Your task to perform on an android device: Go to eBay Image 0: 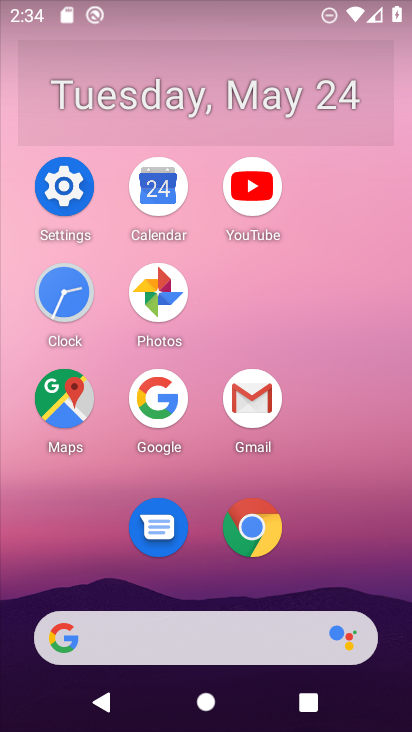
Step 0: click (253, 528)
Your task to perform on an android device: Go to eBay Image 1: 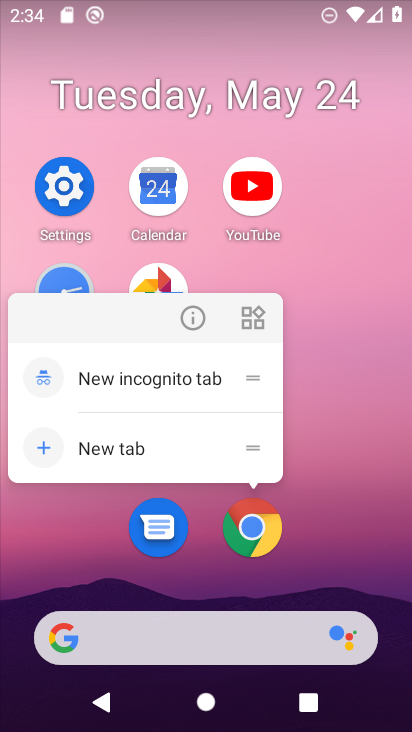
Step 1: click (270, 536)
Your task to perform on an android device: Go to eBay Image 2: 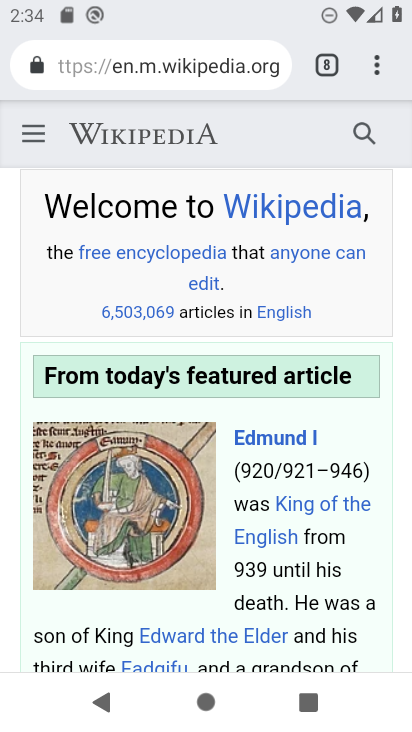
Step 2: click (329, 66)
Your task to perform on an android device: Go to eBay Image 3: 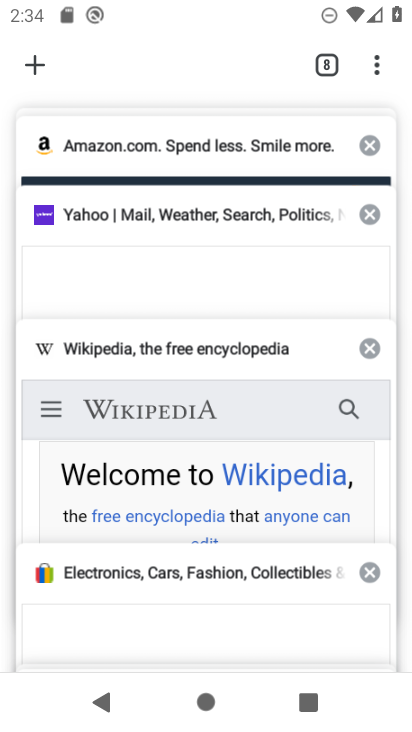
Step 3: drag from (252, 256) to (302, 551)
Your task to perform on an android device: Go to eBay Image 4: 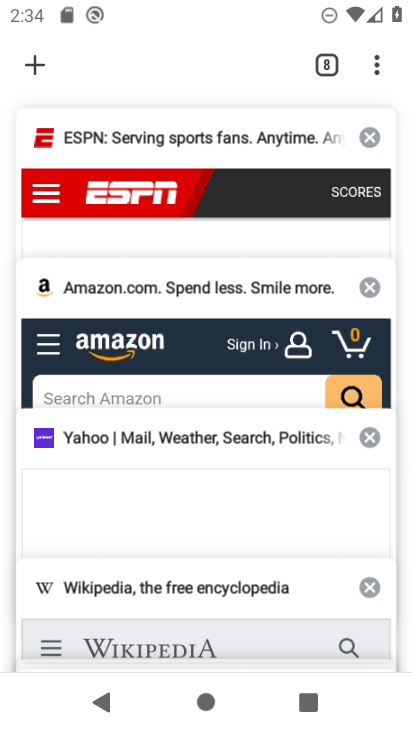
Step 4: drag from (219, 271) to (277, 602)
Your task to perform on an android device: Go to eBay Image 5: 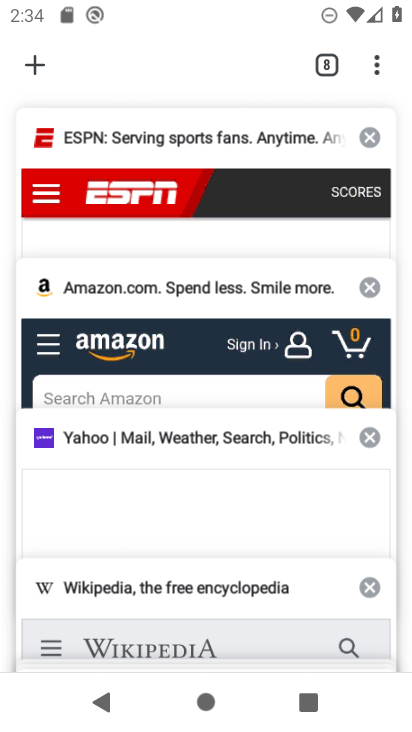
Step 5: drag from (260, 132) to (256, 520)
Your task to perform on an android device: Go to eBay Image 6: 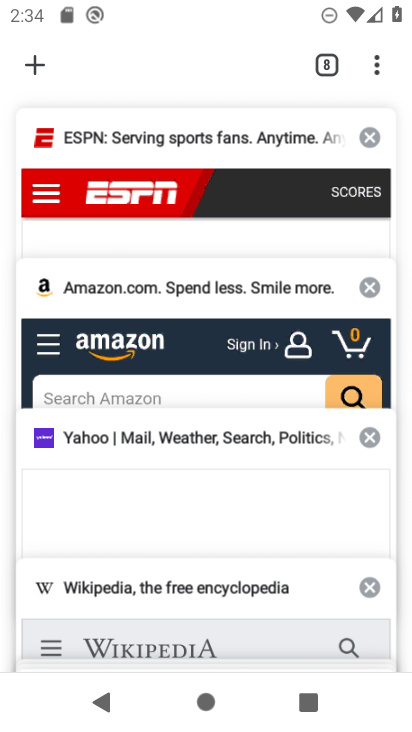
Step 6: drag from (228, 555) to (254, 166)
Your task to perform on an android device: Go to eBay Image 7: 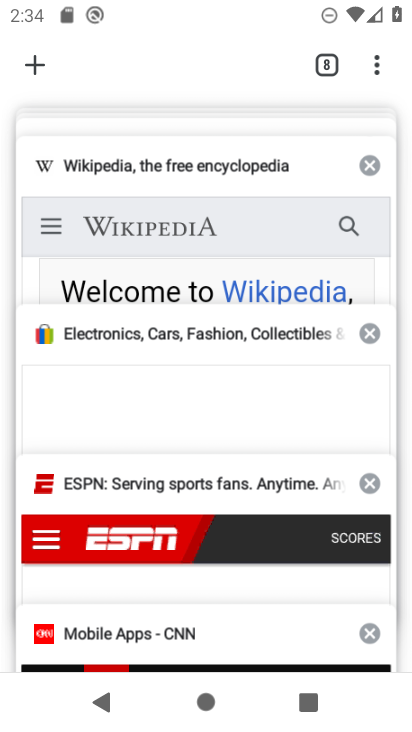
Step 7: drag from (215, 507) to (249, 182)
Your task to perform on an android device: Go to eBay Image 8: 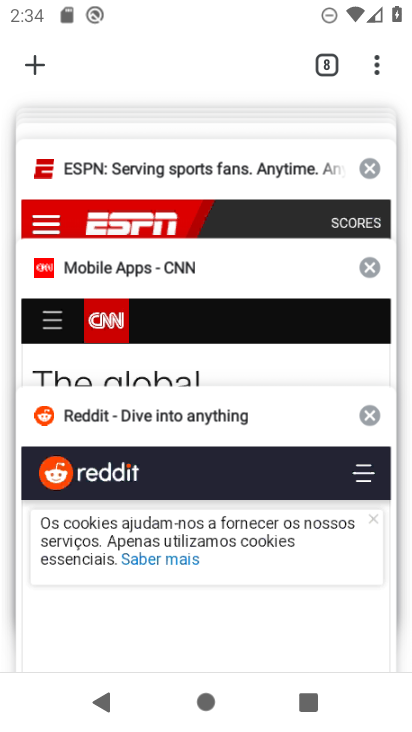
Step 8: drag from (236, 494) to (278, 198)
Your task to perform on an android device: Go to eBay Image 9: 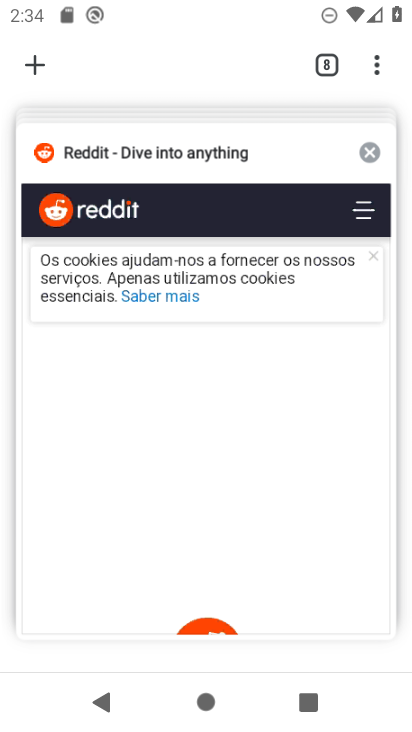
Step 9: drag from (169, 238) to (213, 493)
Your task to perform on an android device: Go to eBay Image 10: 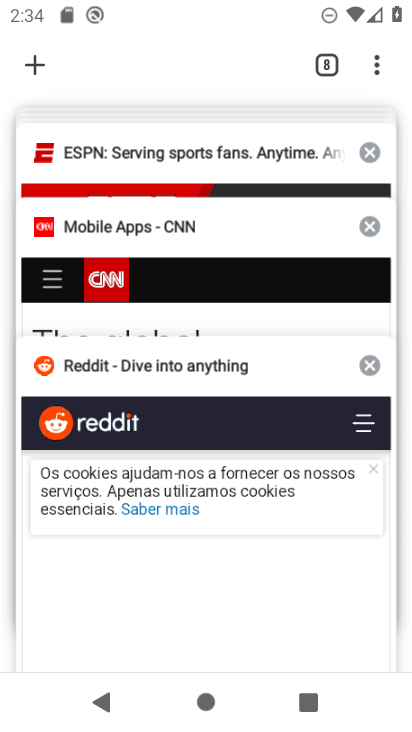
Step 10: click (30, 62)
Your task to perform on an android device: Go to eBay Image 11: 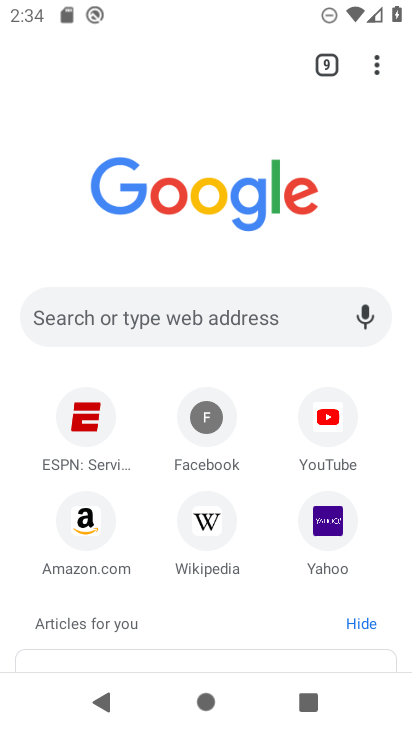
Step 11: click (122, 320)
Your task to perform on an android device: Go to eBay Image 12: 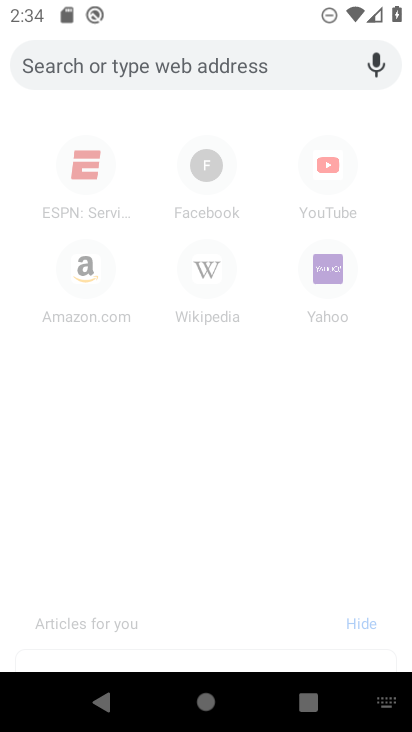
Step 12: type "ebay"
Your task to perform on an android device: Go to eBay Image 13: 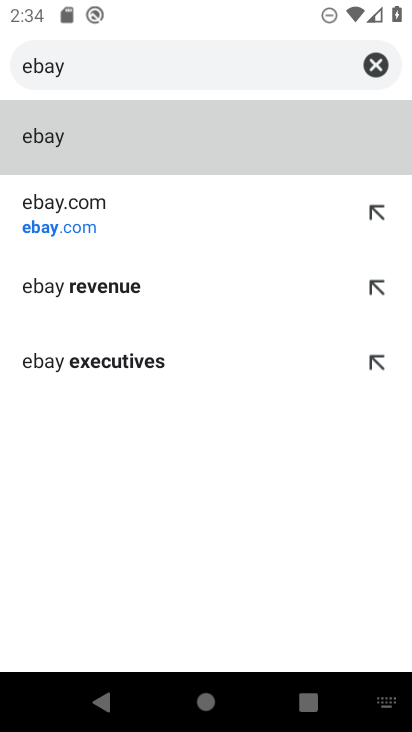
Step 13: click (139, 203)
Your task to perform on an android device: Go to eBay Image 14: 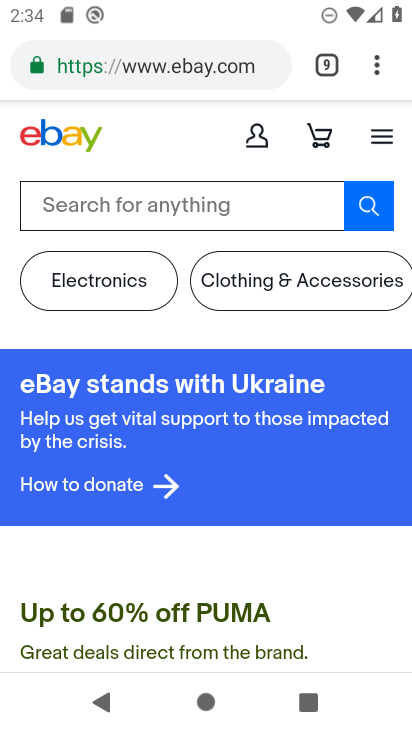
Step 14: task complete